Your task to perform on an android device: Open Google Chrome and click the shortcut for Amazon.com Image 0: 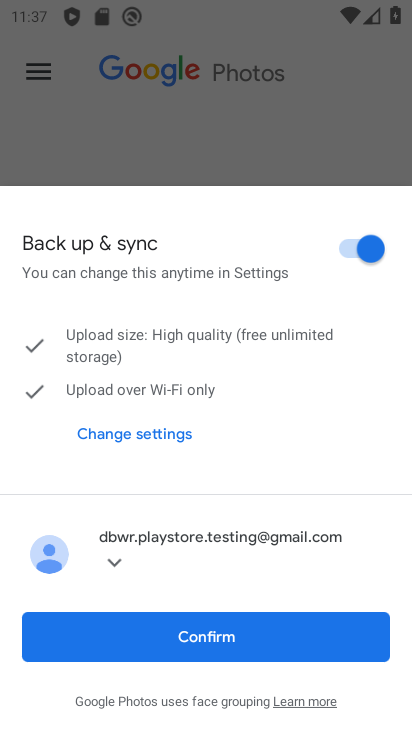
Step 0: press home button
Your task to perform on an android device: Open Google Chrome and click the shortcut for Amazon.com Image 1: 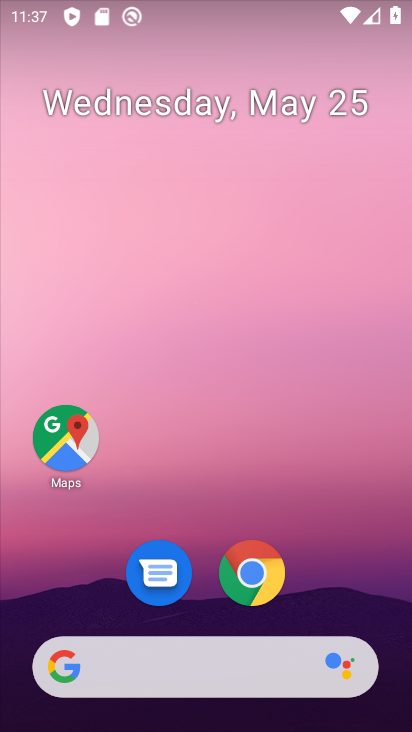
Step 1: click (255, 577)
Your task to perform on an android device: Open Google Chrome and click the shortcut for Amazon.com Image 2: 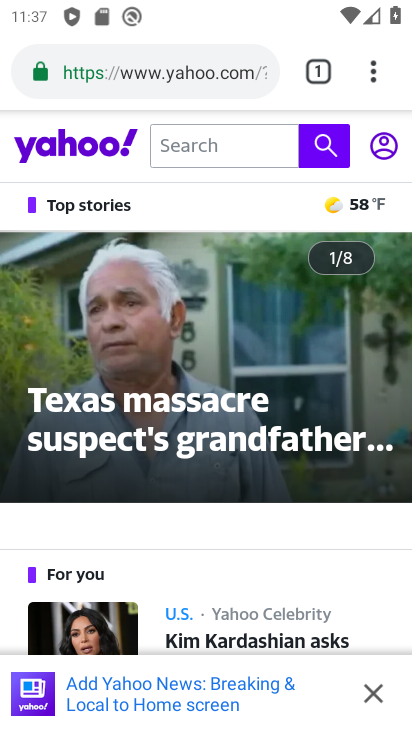
Step 2: click (207, 83)
Your task to perform on an android device: Open Google Chrome and click the shortcut for Amazon.com Image 3: 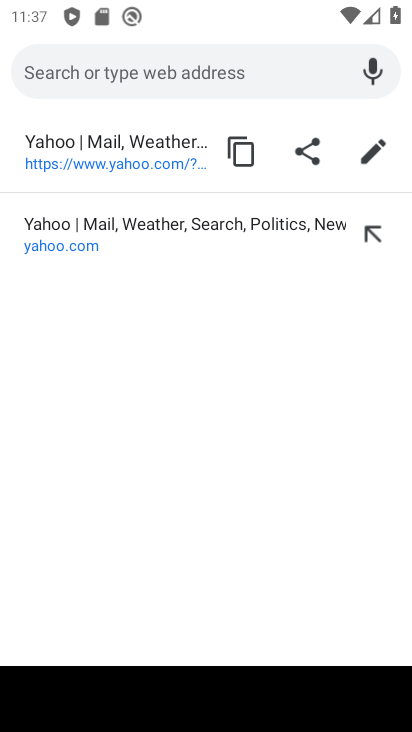
Step 3: type "amazon.com"
Your task to perform on an android device: Open Google Chrome and click the shortcut for Amazon.com Image 4: 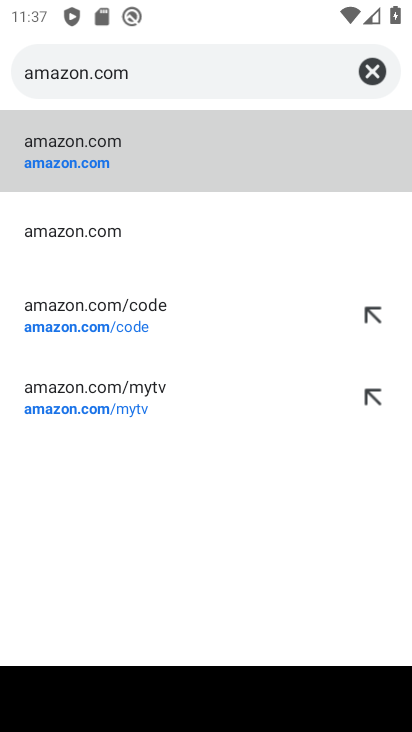
Step 4: click (219, 146)
Your task to perform on an android device: Open Google Chrome and click the shortcut for Amazon.com Image 5: 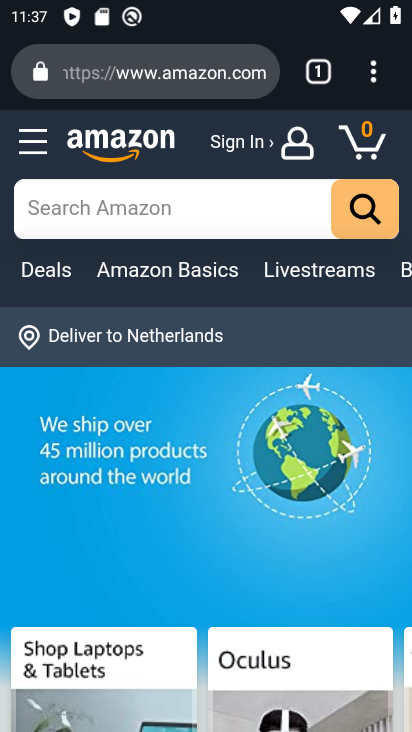
Step 5: task complete